Your task to perform on an android device: delete browsing data in the chrome app Image 0: 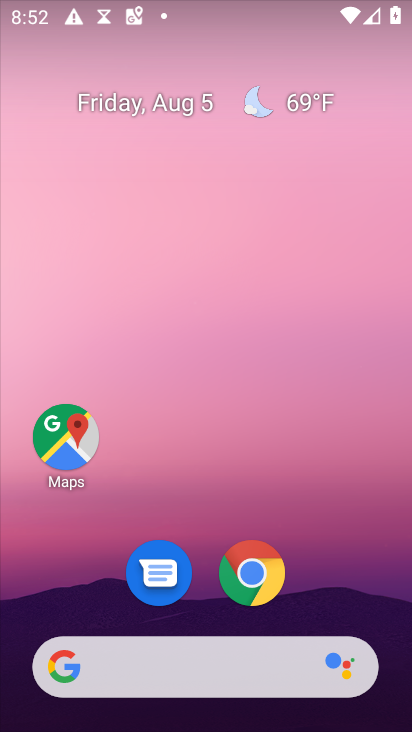
Step 0: click (258, 575)
Your task to perform on an android device: delete browsing data in the chrome app Image 1: 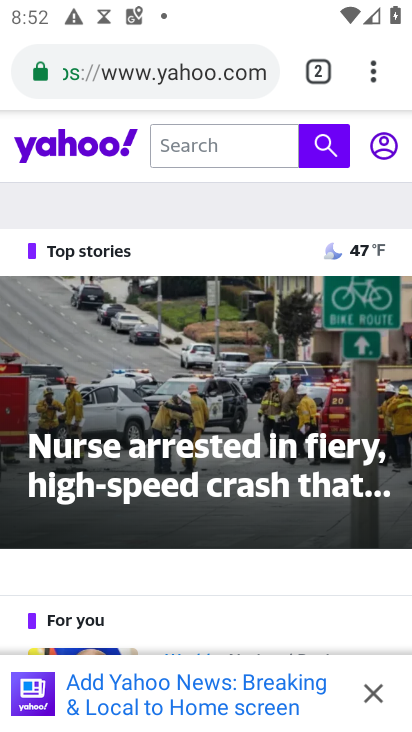
Step 1: click (374, 76)
Your task to perform on an android device: delete browsing data in the chrome app Image 2: 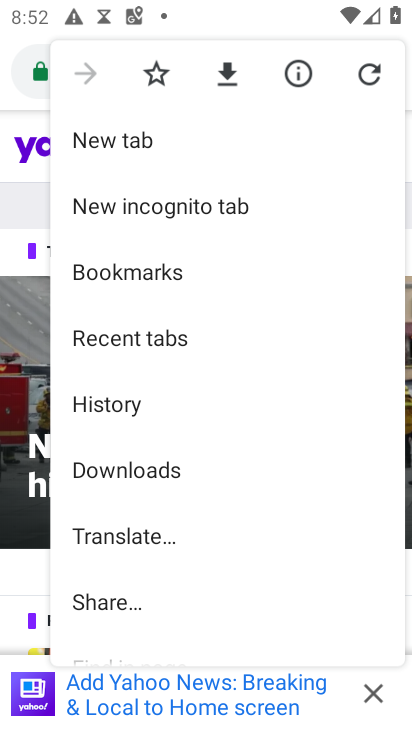
Step 2: click (125, 399)
Your task to perform on an android device: delete browsing data in the chrome app Image 3: 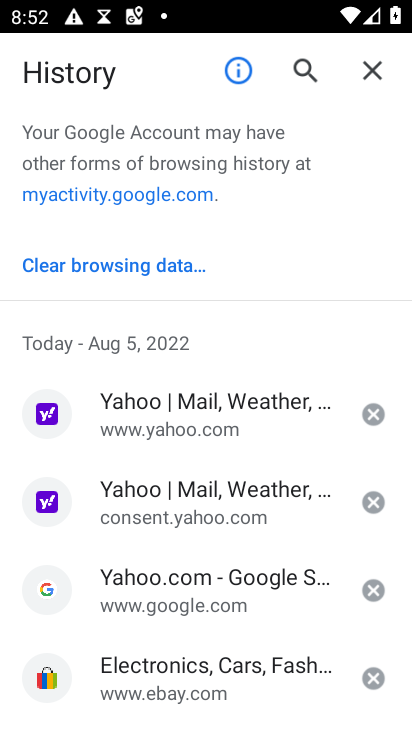
Step 3: click (130, 274)
Your task to perform on an android device: delete browsing data in the chrome app Image 4: 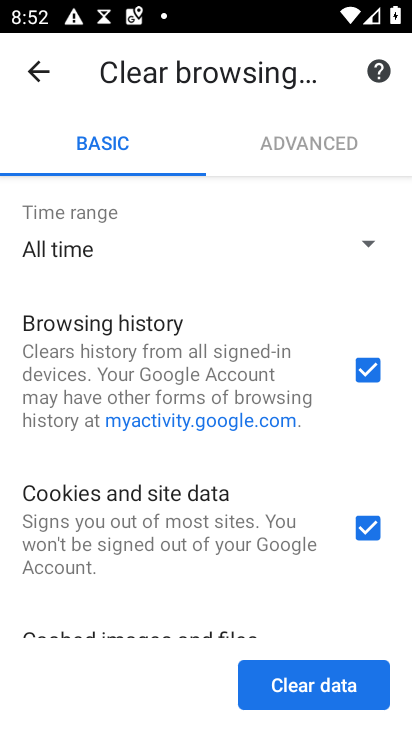
Step 4: click (325, 682)
Your task to perform on an android device: delete browsing data in the chrome app Image 5: 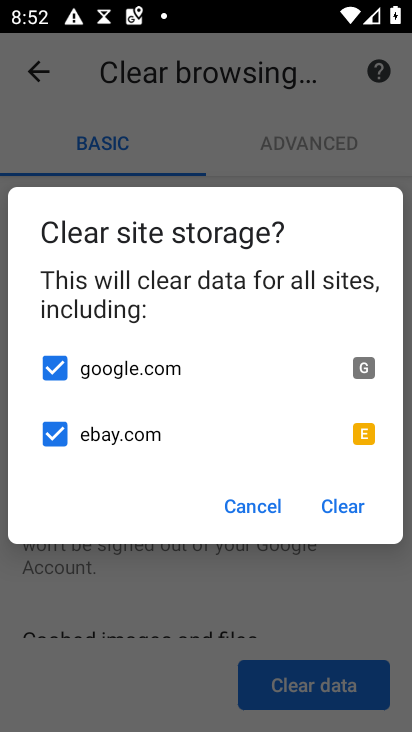
Step 5: click (354, 501)
Your task to perform on an android device: delete browsing data in the chrome app Image 6: 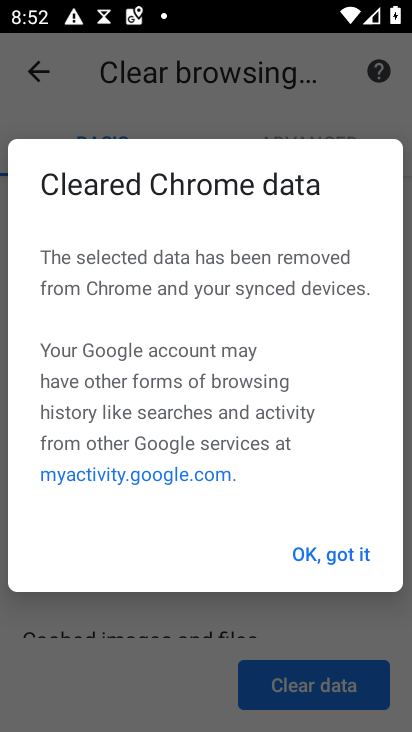
Step 6: click (345, 552)
Your task to perform on an android device: delete browsing data in the chrome app Image 7: 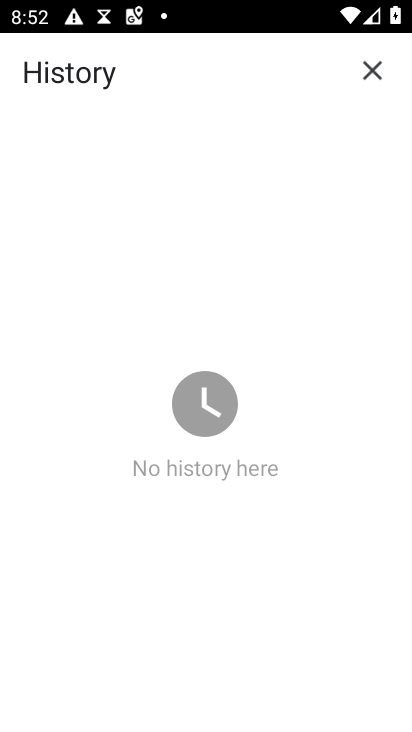
Step 7: task complete